Your task to perform on an android device: Open battery settings Image 0: 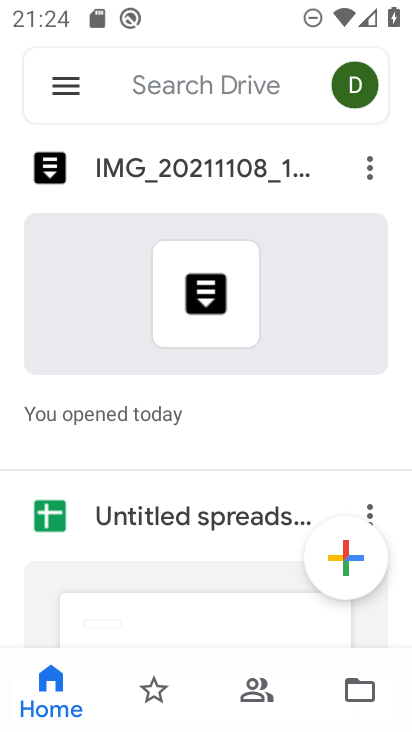
Step 0: press home button
Your task to perform on an android device: Open battery settings Image 1: 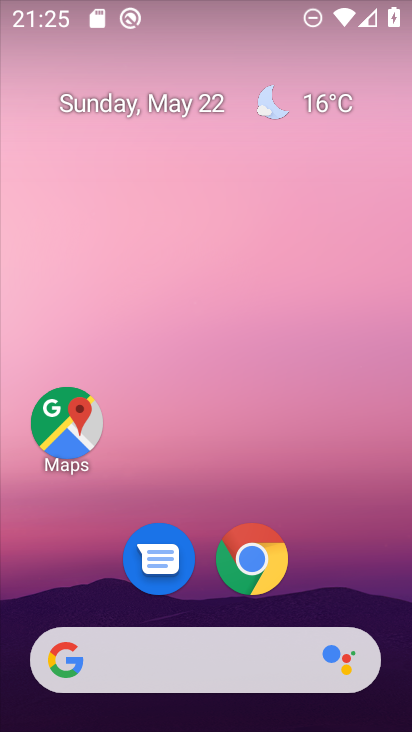
Step 1: drag from (248, 693) to (213, 164)
Your task to perform on an android device: Open battery settings Image 2: 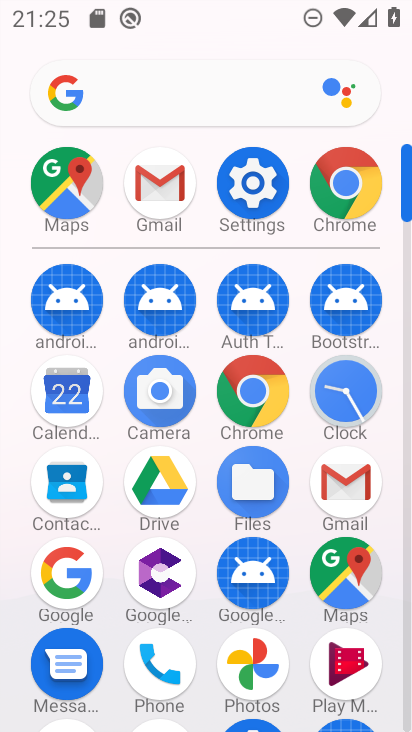
Step 2: click (265, 203)
Your task to perform on an android device: Open battery settings Image 3: 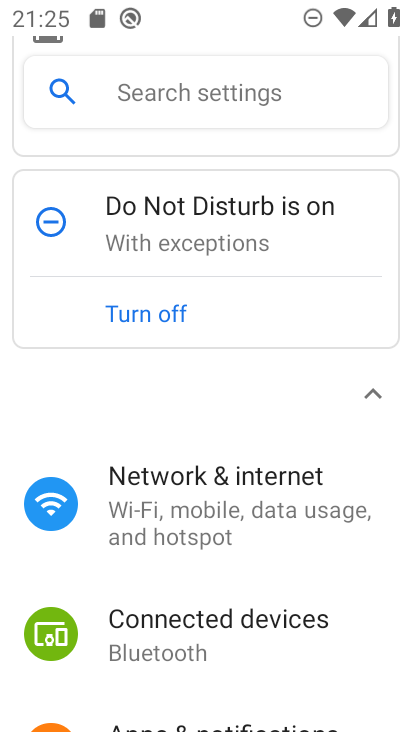
Step 3: drag from (182, 567) to (192, 290)
Your task to perform on an android device: Open battery settings Image 4: 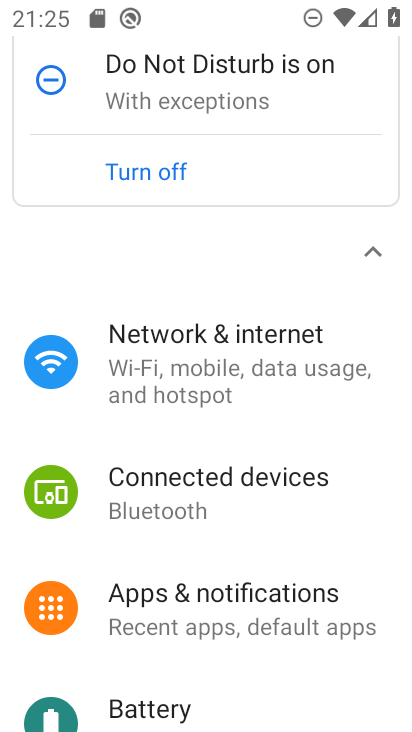
Step 4: drag from (228, 602) to (230, 448)
Your task to perform on an android device: Open battery settings Image 5: 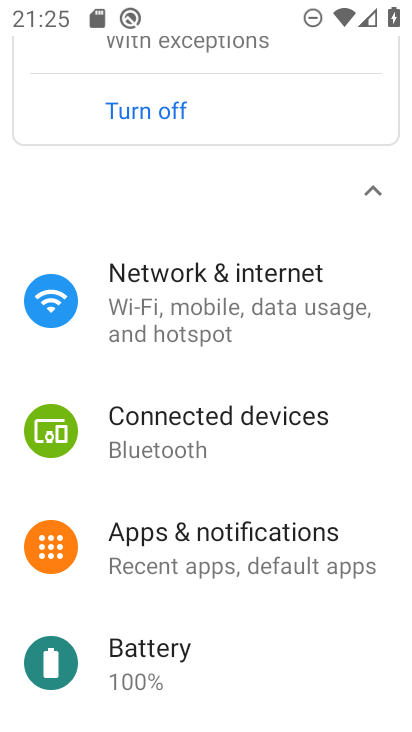
Step 5: click (168, 664)
Your task to perform on an android device: Open battery settings Image 6: 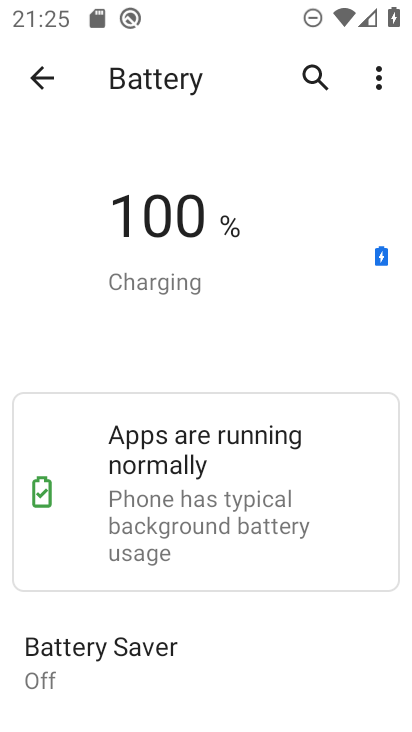
Step 6: task complete